Your task to perform on an android device: toggle wifi Image 0: 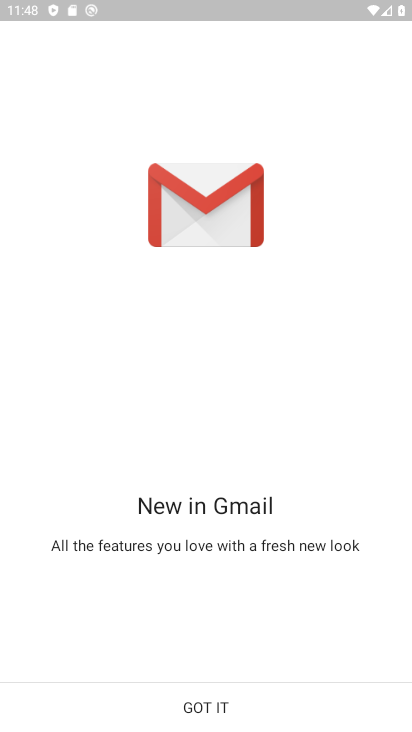
Step 0: press home button
Your task to perform on an android device: toggle wifi Image 1: 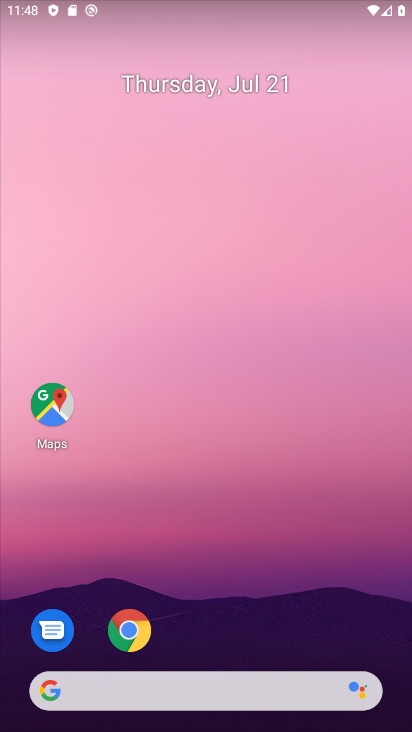
Step 1: drag from (225, 653) to (217, 56)
Your task to perform on an android device: toggle wifi Image 2: 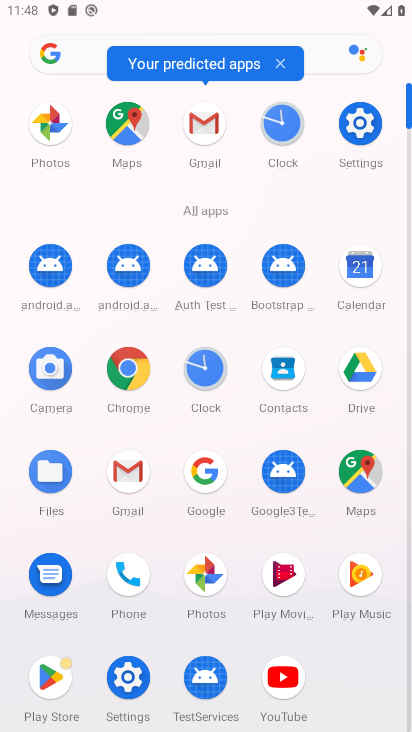
Step 2: click (362, 153)
Your task to perform on an android device: toggle wifi Image 3: 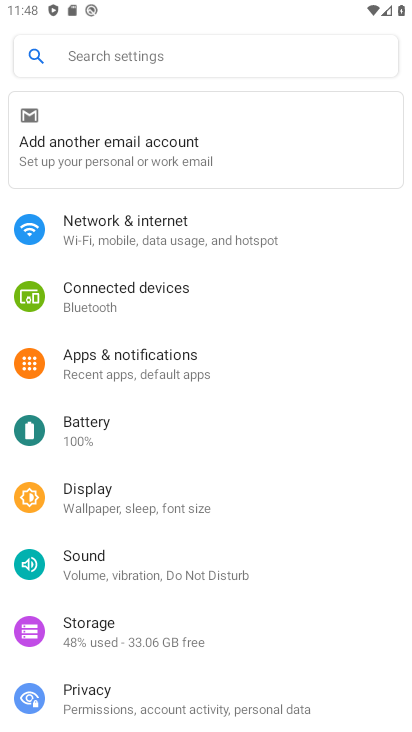
Step 3: click (173, 248)
Your task to perform on an android device: toggle wifi Image 4: 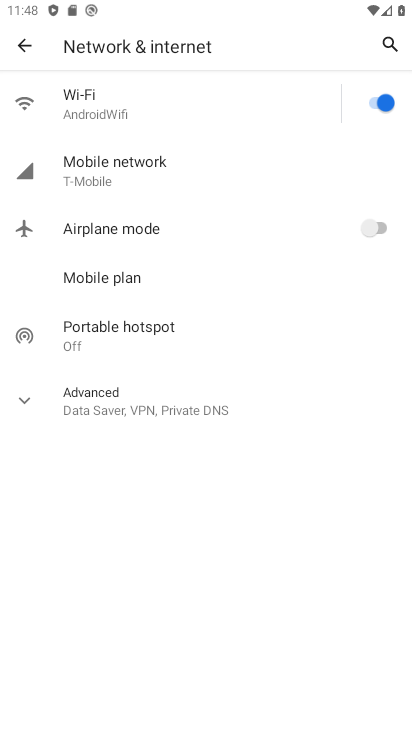
Step 4: click (96, 93)
Your task to perform on an android device: toggle wifi Image 5: 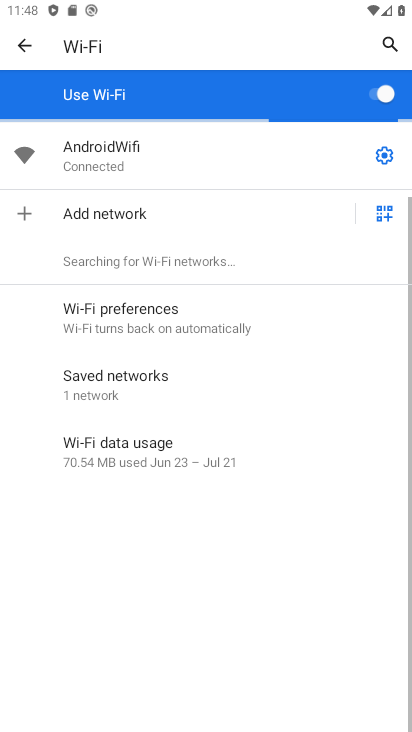
Step 5: click (372, 100)
Your task to perform on an android device: toggle wifi Image 6: 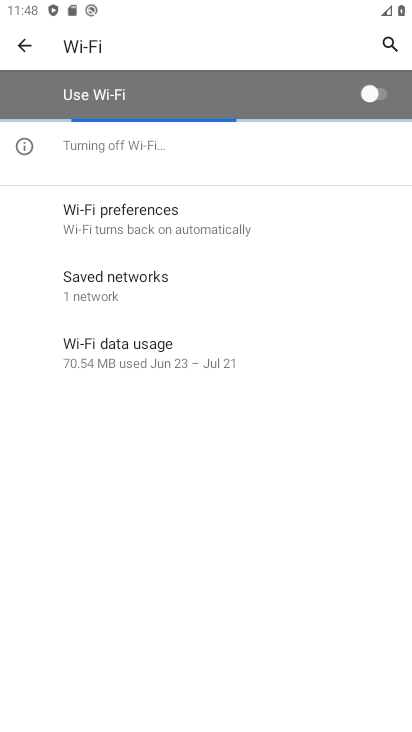
Step 6: task complete